Your task to perform on an android device: turn off translation in the chrome app Image 0: 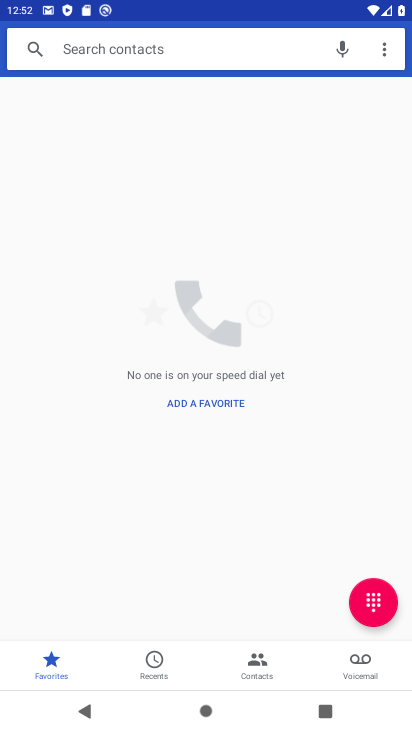
Step 0: press home button
Your task to perform on an android device: turn off translation in the chrome app Image 1: 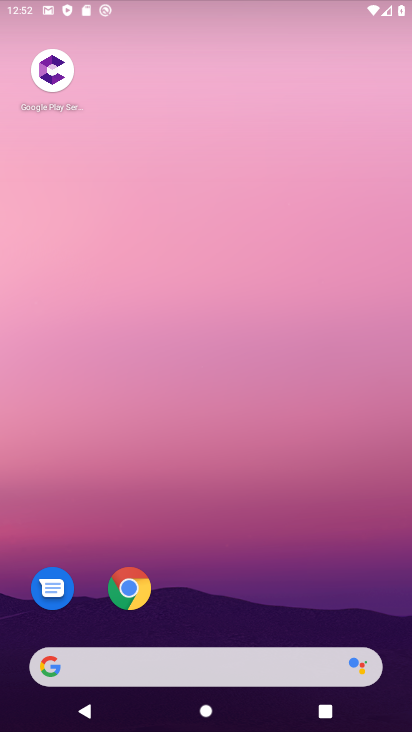
Step 1: drag from (244, 600) to (210, 148)
Your task to perform on an android device: turn off translation in the chrome app Image 2: 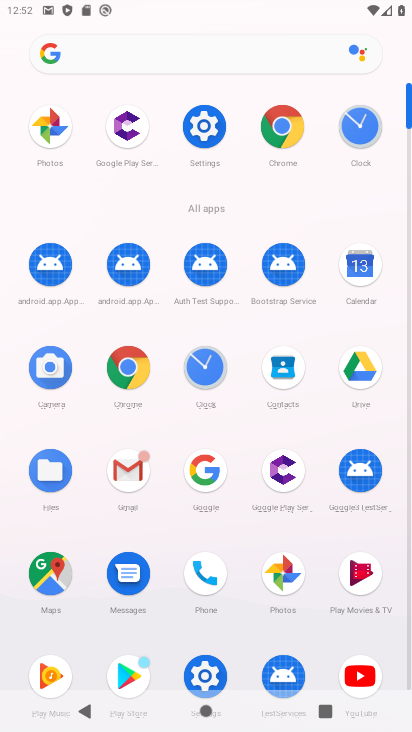
Step 2: click (105, 374)
Your task to perform on an android device: turn off translation in the chrome app Image 3: 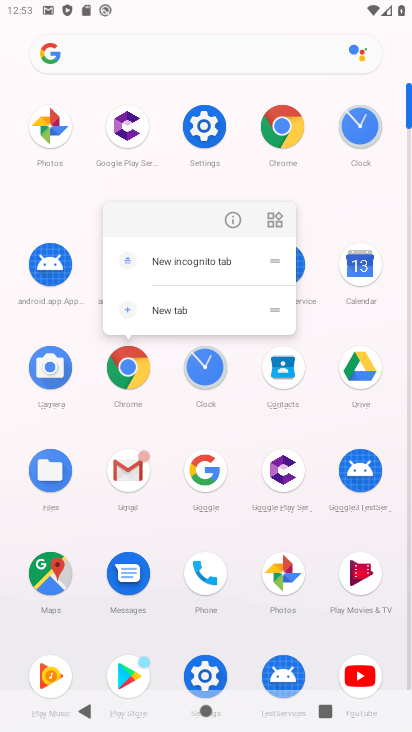
Step 3: click (132, 380)
Your task to perform on an android device: turn off translation in the chrome app Image 4: 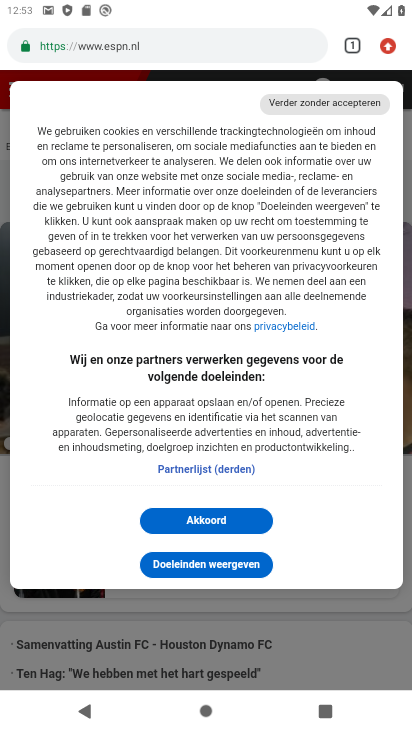
Step 4: drag from (392, 42) to (245, 591)
Your task to perform on an android device: turn off translation in the chrome app Image 5: 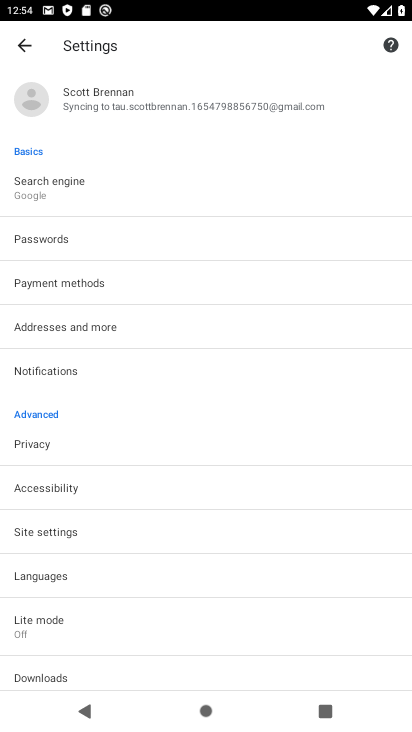
Step 5: click (99, 561)
Your task to perform on an android device: turn off translation in the chrome app Image 6: 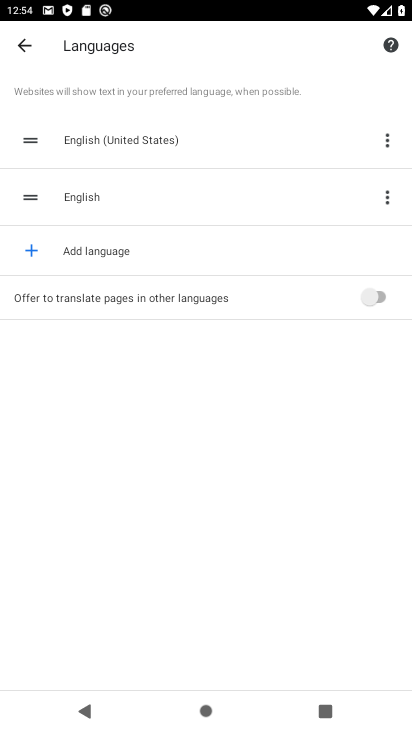
Step 6: task complete